Your task to perform on an android device: check android version Image 0: 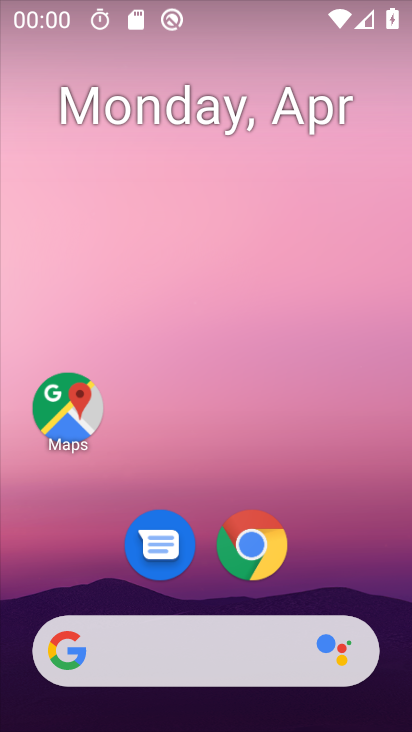
Step 0: drag from (335, 463) to (340, 202)
Your task to perform on an android device: check android version Image 1: 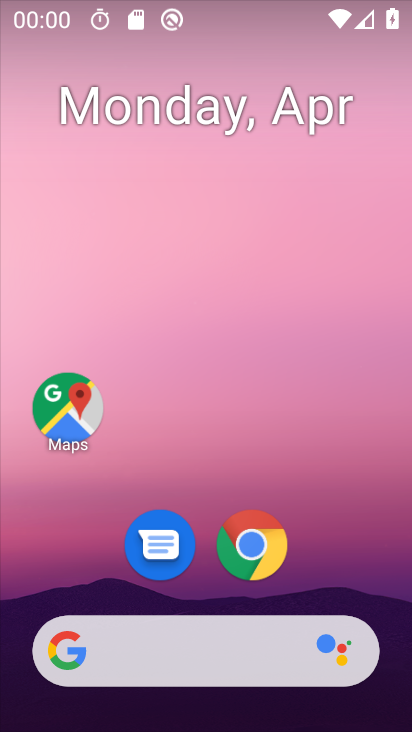
Step 1: drag from (307, 549) to (282, 145)
Your task to perform on an android device: check android version Image 2: 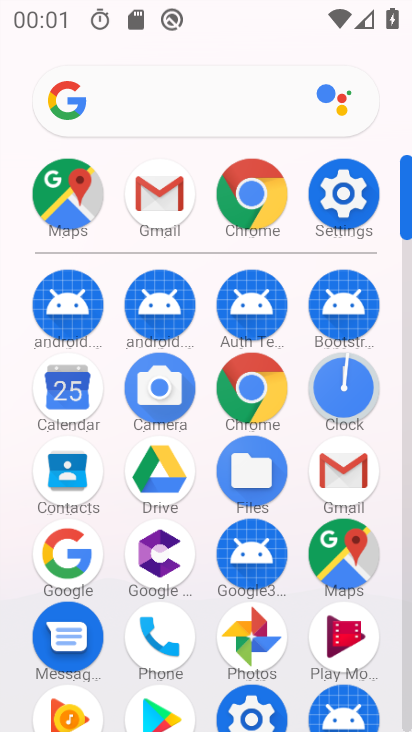
Step 2: click (326, 193)
Your task to perform on an android device: check android version Image 3: 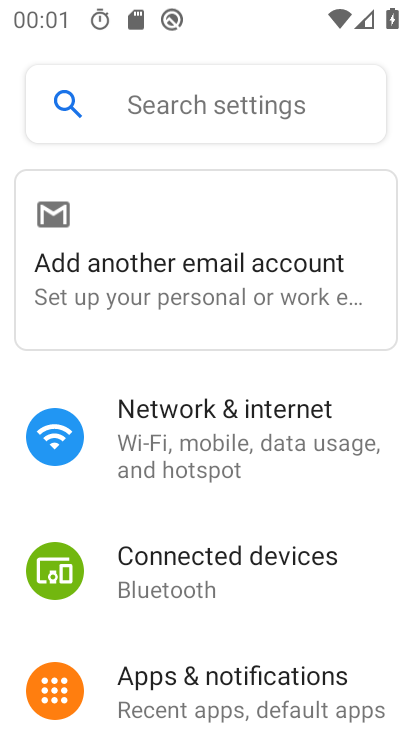
Step 3: drag from (235, 624) to (280, 30)
Your task to perform on an android device: check android version Image 4: 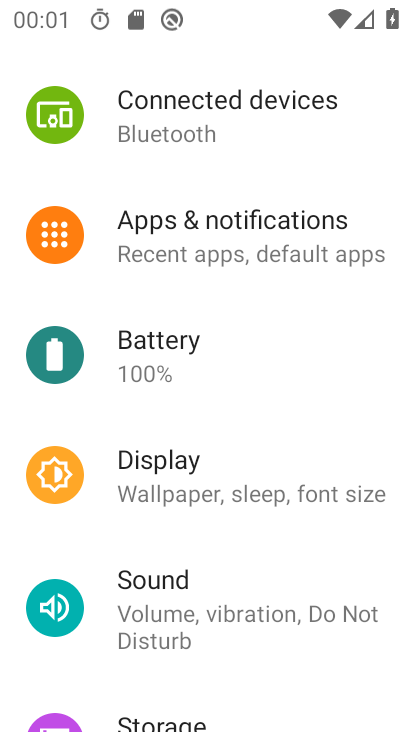
Step 4: drag from (198, 629) to (325, 1)
Your task to perform on an android device: check android version Image 5: 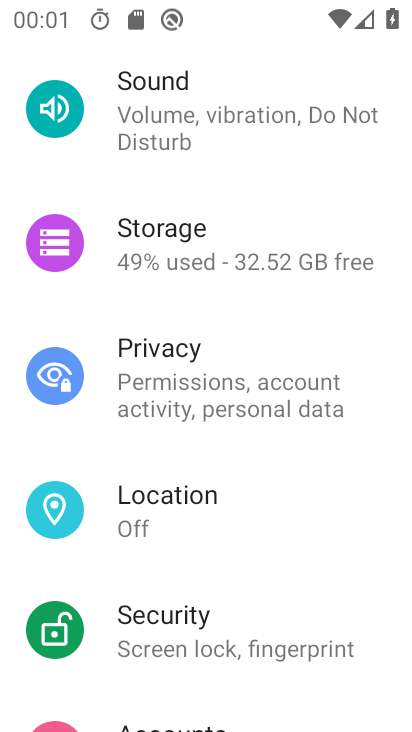
Step 5: drag from (186, 580) to (267, 39)
Your task to perform on an android device: check android version Image 6: 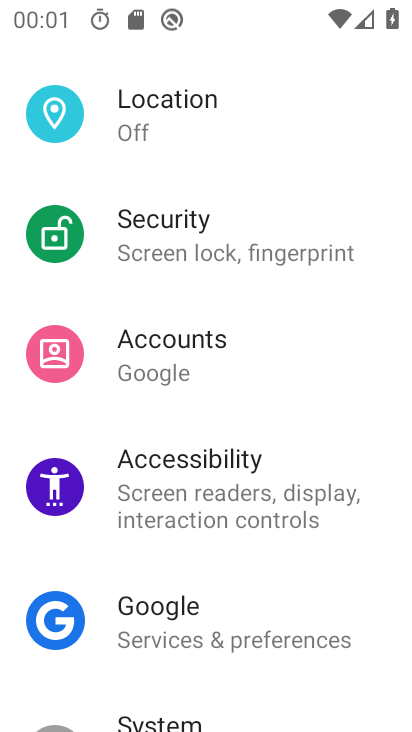
Step 6: drag from (277, 583) to (313, 116)
Your task to perform on an android device: check android version Image 7: 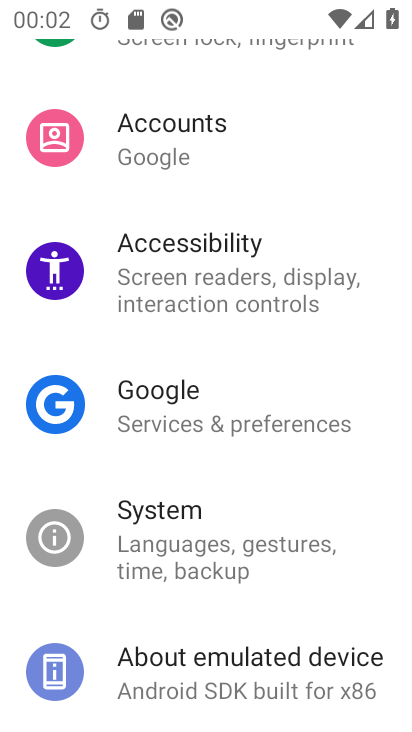
Step 7: click (192, 671)
Your task to perform on an android device: check android version Image 8: 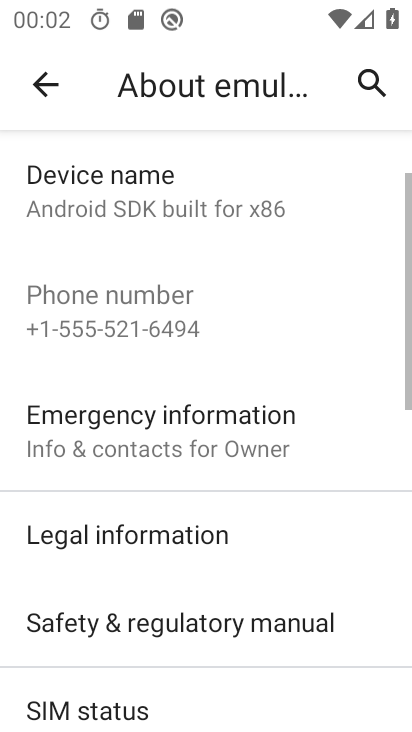
Step 8: drag from (238, 627) to (340, 163)
Your task to perform on an android device: check android version Image 9: 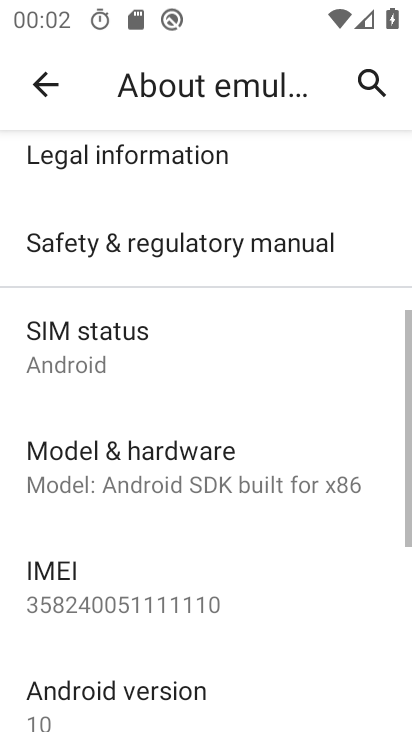
Step 9: click (190, 681)
Your task to perform on an android device: check android version Image 10: 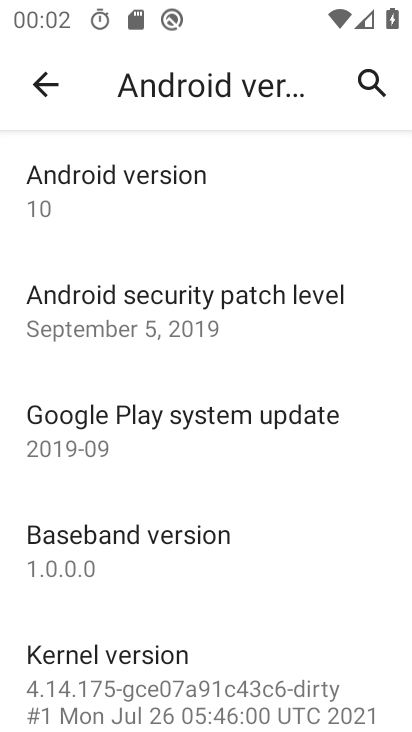
Step 10: task complete